Your task to perform on an android device: Show me recent news Image 0: 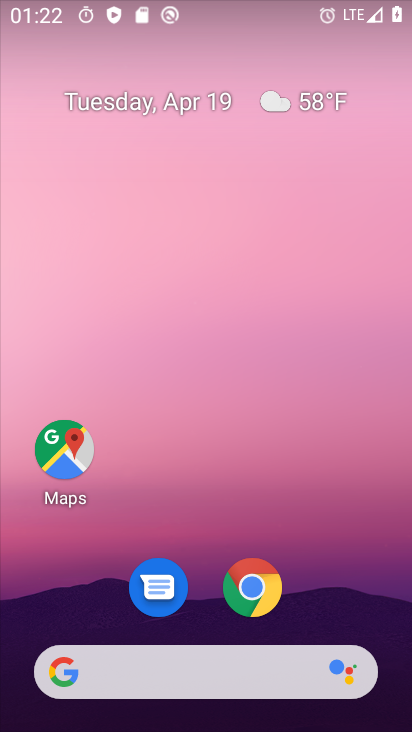
Step 0: drag from (359, 600) to (355, 159)
Your task to perform on an android device: Show me recent news Image 1: 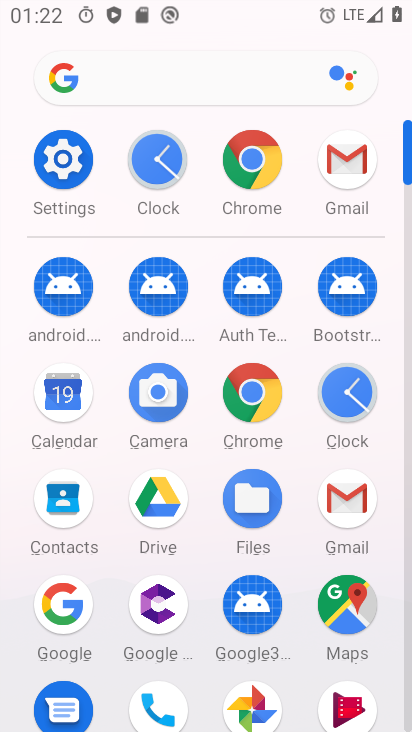
Step 1: click (244, 412)
Your task to perform on an android device: Show me recent news Image 2: 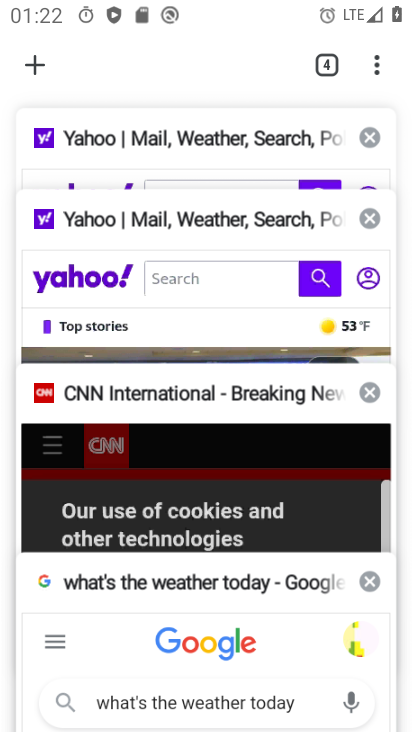
Step 2: click (37, 58)
Your task to perform on an android device: Show me recent news Image 3: 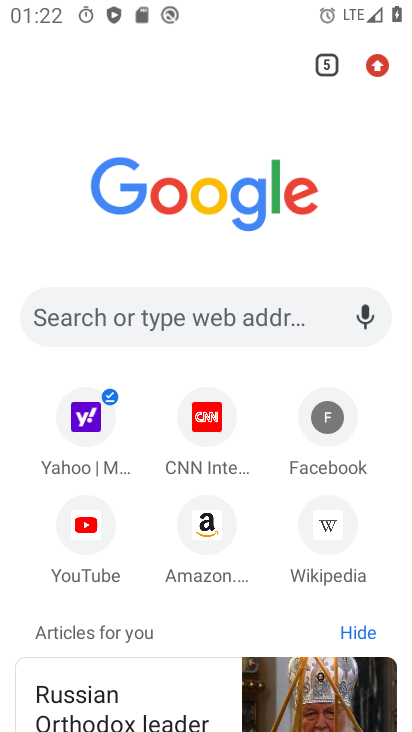
Step 3: click (182, 321)
Your task to perform on an android device: Show me recent news Image 4: 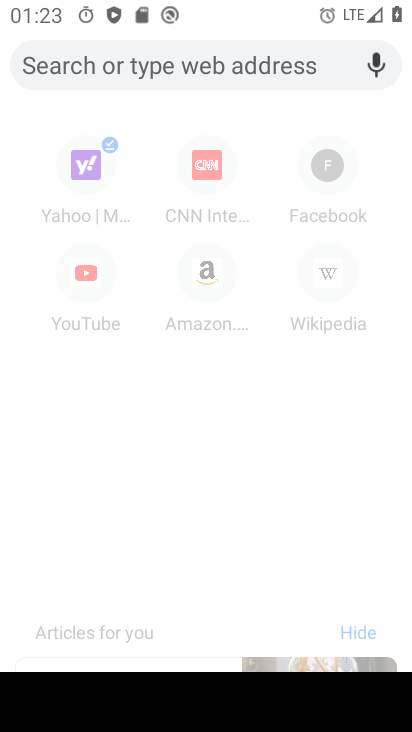
Step 4: type "recent news"
Your task to perform on an android device: Show me recent news Image 5: 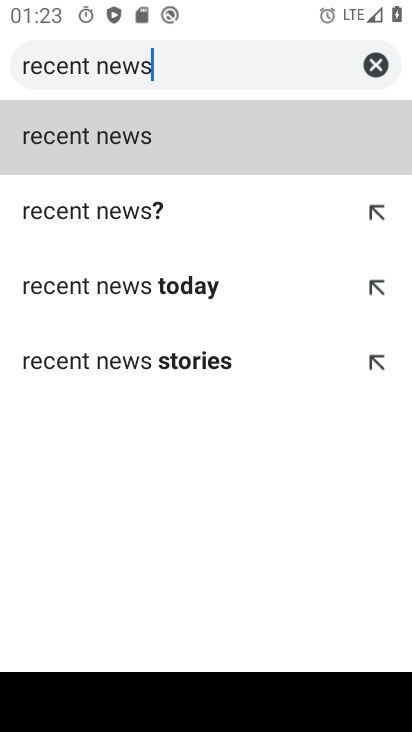
Step 5: click (95, 136)
Your task to perform on an android device: Show me recent news Image 6: 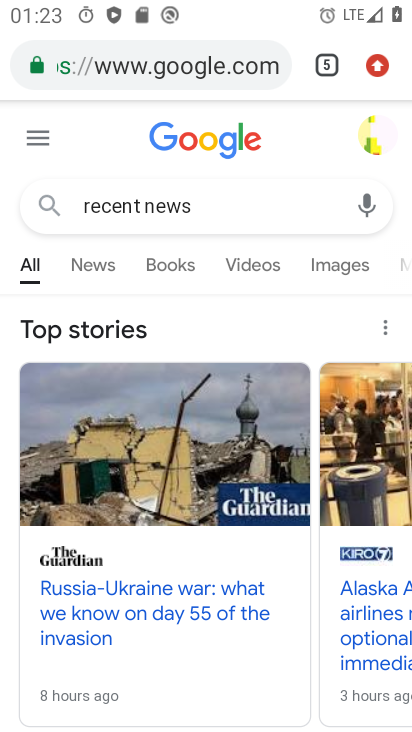
Step 6: task complete